Your task to perform on an android device: Open location settings Image 0: 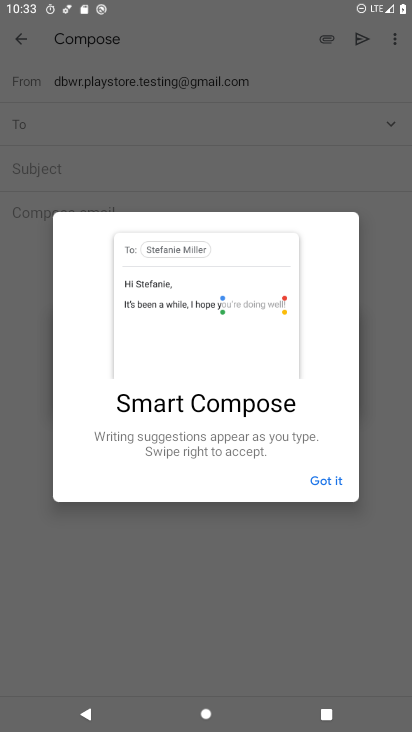
Step 0: press home button
Your task to perform on an android device: Open location settings Image 1: 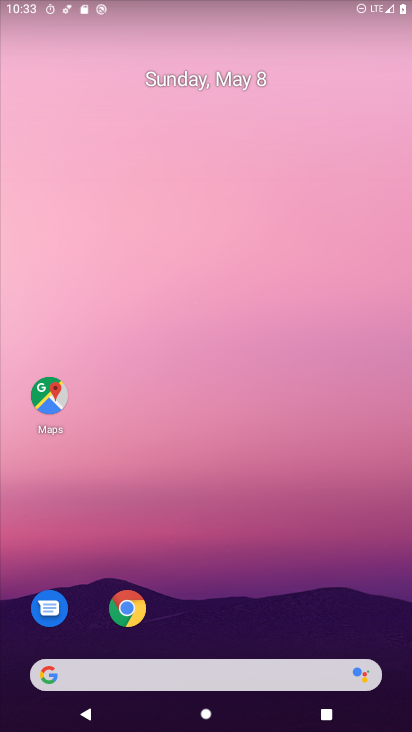
Step 1: drag from (167, 614) to (208, 256)
Your task to perform on an android device: Open location settings Image 2: 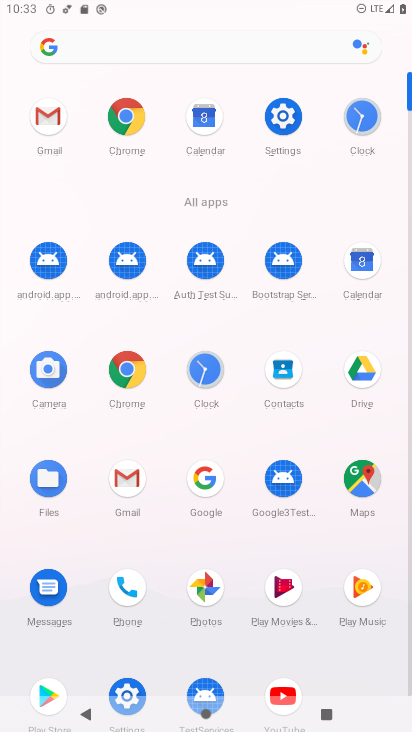
Step 2: click (280, 120)
Your task to perform on an android device: Open location settings Image 3: 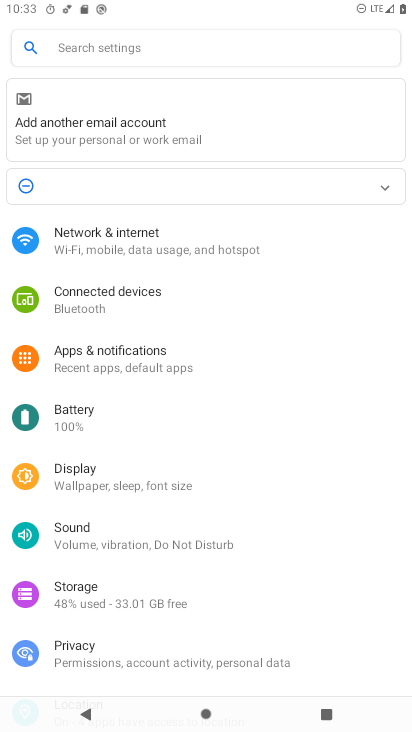
Step 3: drag from (139, 514) to (182, 281)
Your task to perform on an android device: Open location settings Image 4: 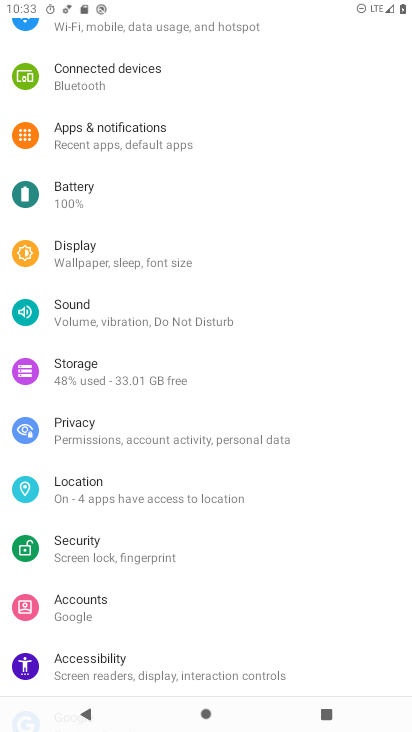
Step 4: click (120, 552)
Your task to perform on an android device: Open location settings Image 5: 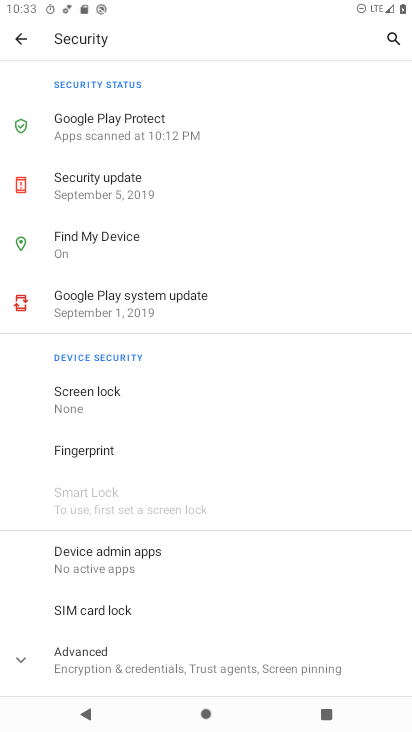
Step 5: task complete